Your task to perform on an android device: turn off picture-in-picture Image 0: 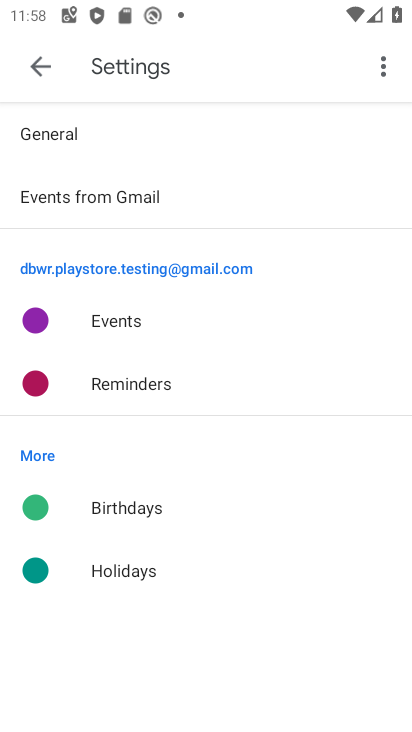
Step 0: press home button
Your task to perform on an android device: turn off picture-in-picture Image 1: 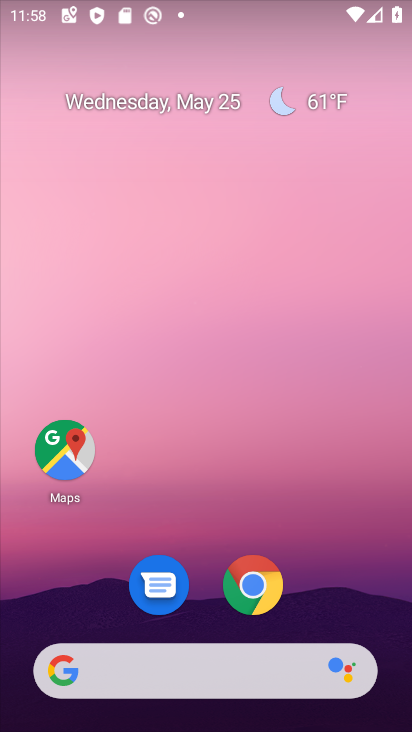
Step 1: click (261, 583)
Your task to perform on an android device: turn off picture-in-picture Image 2: 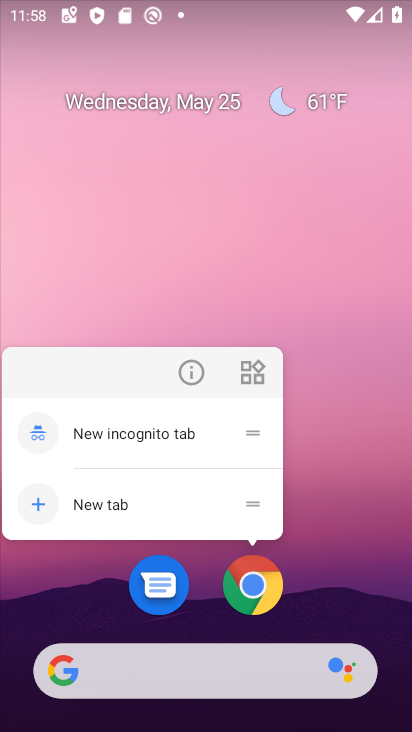
Step 2: click (194, 366)
Your task to perform on an android device: turn off picture-in-picture Image 3: 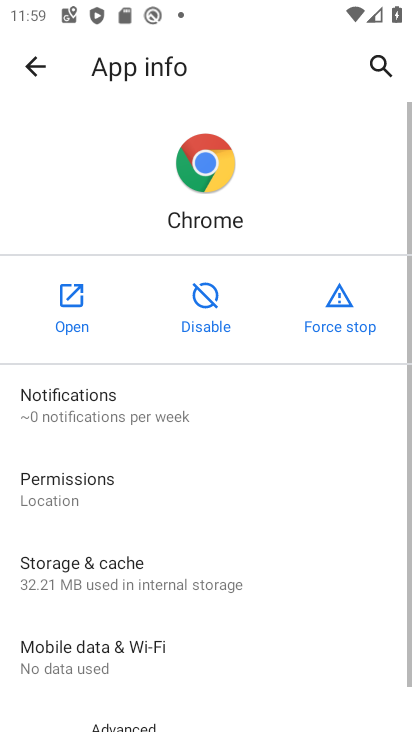
Step 3: drag from (241, 570) to (289, 162)
Your task to perform on an android device: turn off picture-in-picture Image 4: 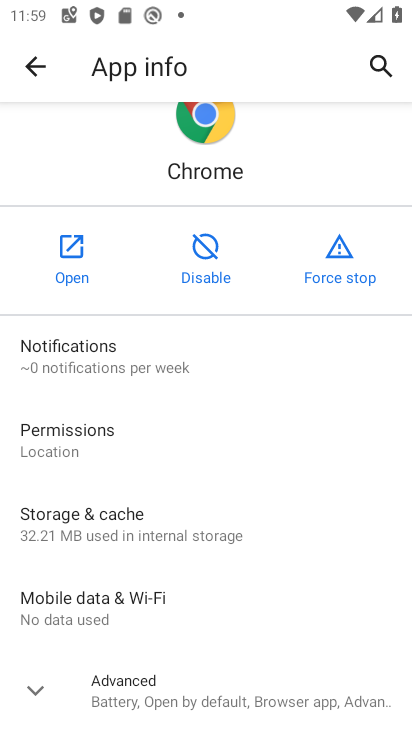
Step 4: click (37, 685)
Your task to perform on an android device: turn off picture-in-picture Image 5: 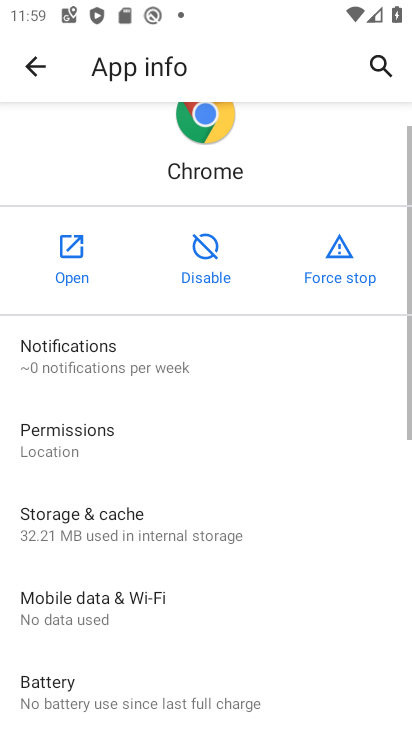
Step 5: drag from (287, 552) to (321, 160)
Your task to perform on an android device: turn off picture-in-picture Image 6: 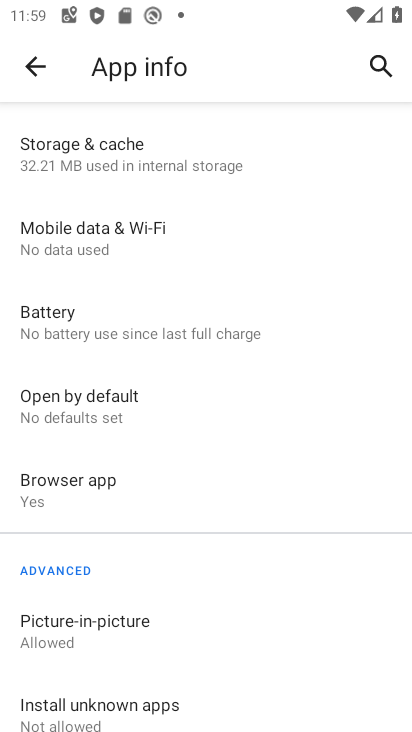
Step 6: click (158, 626)
Your task to perform on an android device: turn off picture-in-picture Image 7: 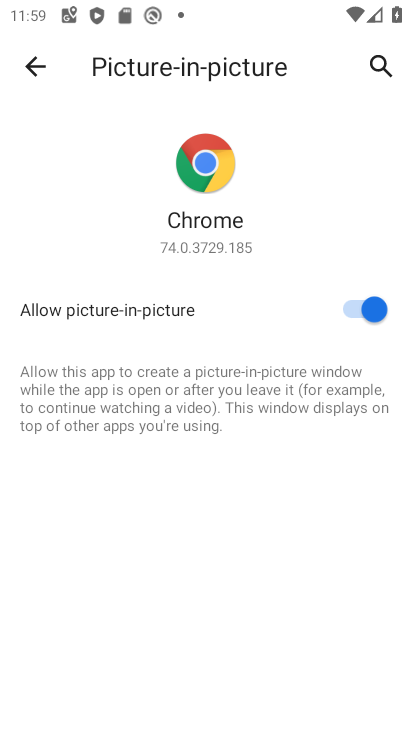
Step 7: click (359, 297)
Your task to perform on an android device: turn off picture-in-picture Image 8: 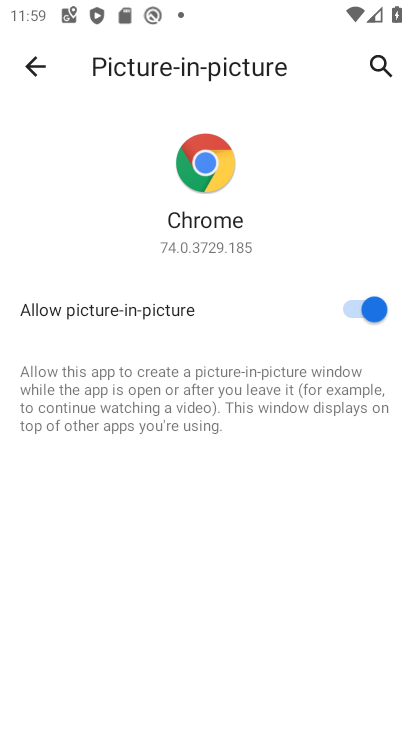
Step 8: click (354, 312)
Your task to perform on an android device: turn off picture-in-picture Image 9: 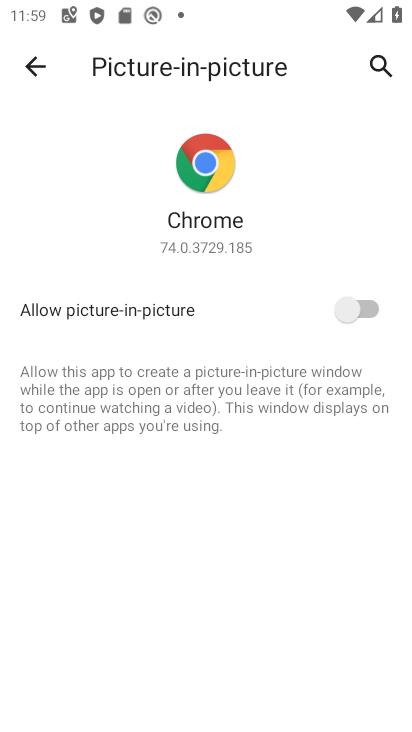
Step 9: task complete